Your task to perform on an android device: change keyboard looks Image 0: 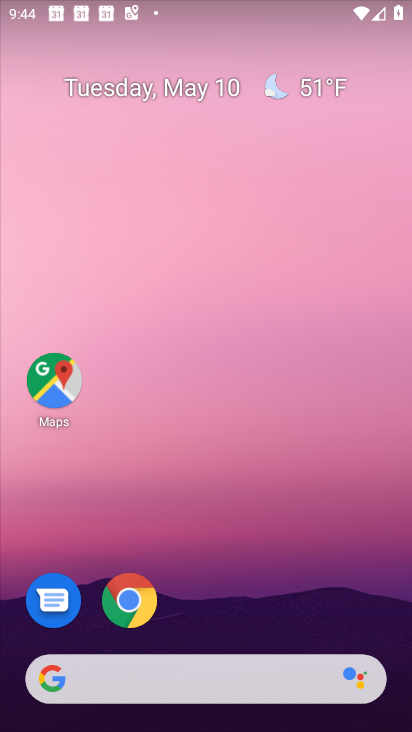
Step 0: drag from (233, 639) to (325, 14)
Your task to perform on an android device: change keyboard looks Image 1: 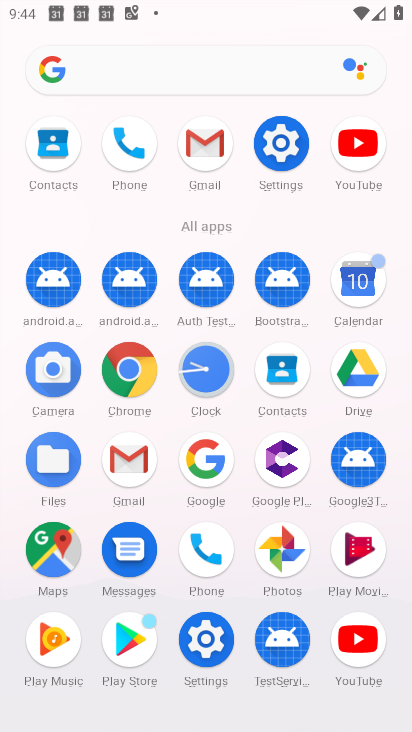
Step 1: click (270, 135)
Your task to perform on an android device: change keyboard looks Image 2: 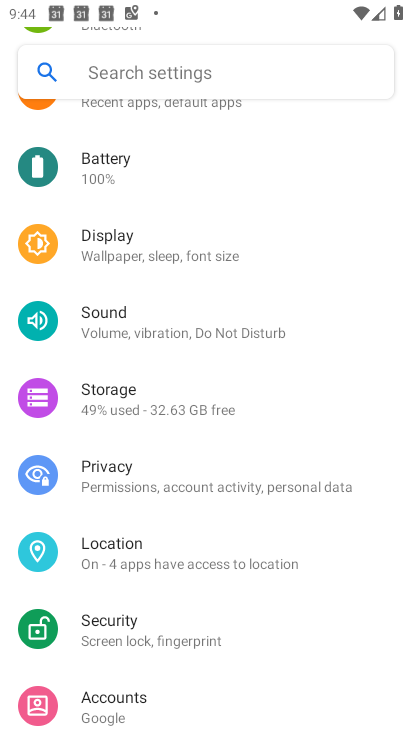
Step 2: drag from (187, 661) to (196, 122)
Your task to perform on an android device: change keyboard looks Image 3: 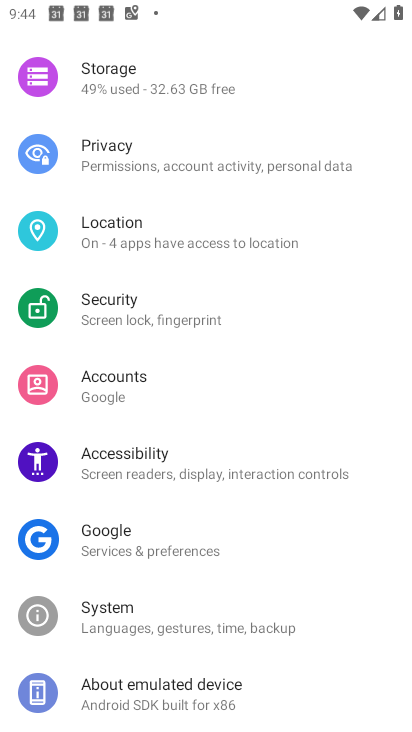
Step 3: click (202, 624)
Your task to perform on an android device: change keyboard looks Image 4: 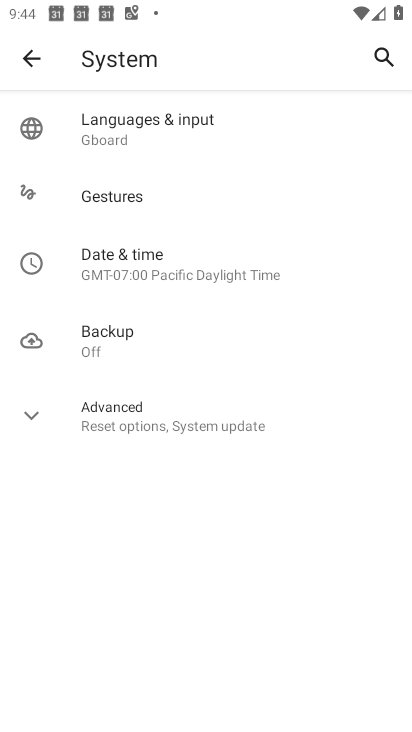
Step 4: click (189, 119)
Your task to perform on an android device: change keyboard looks Image 5: 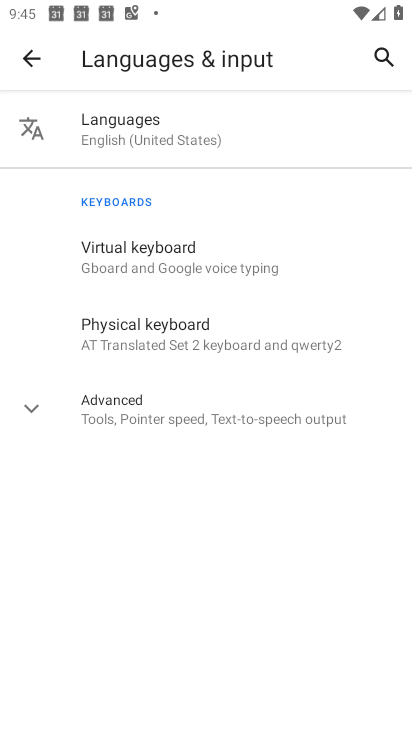
Step 5: click (156, 413)
Your task to perform on an android device: change keyboard looks Image 6: 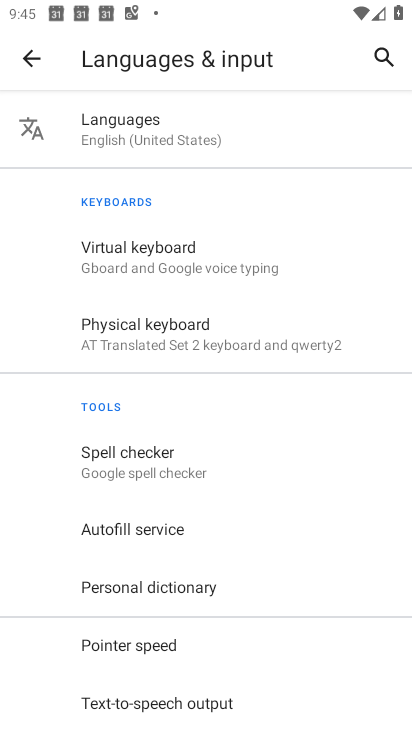
Step 6: drag from (187, 623) to (251, 284)
Your task to perform on an android device: change keyboard looks Image 7: 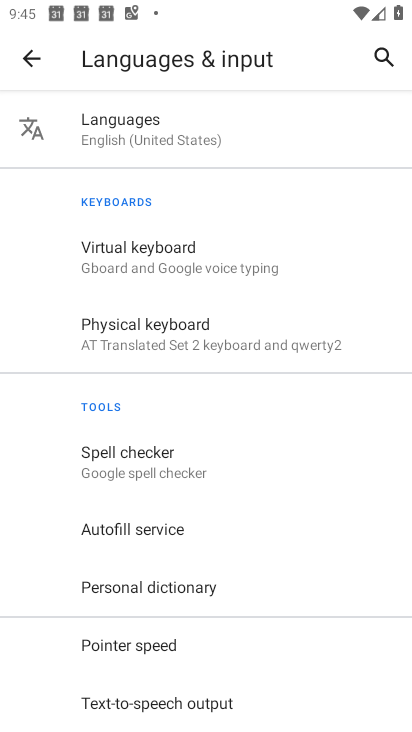
Step 7: click (125, 252)
Your task to perform on an android device: change keyboard looks Image 8: 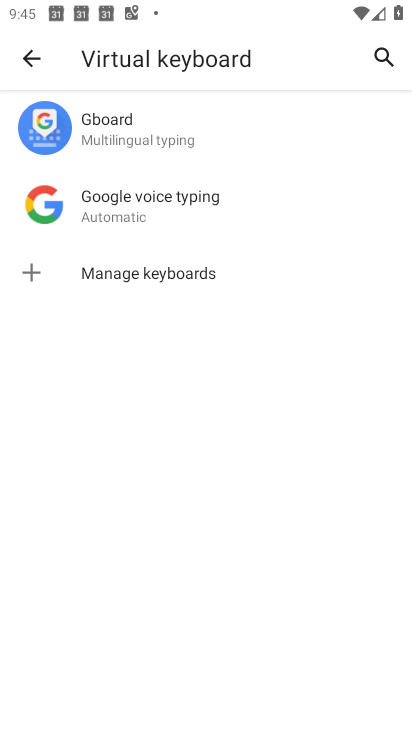
Step 8: click (132, 132)
Your task to perform on an android device: change keyboard looks Image 9: 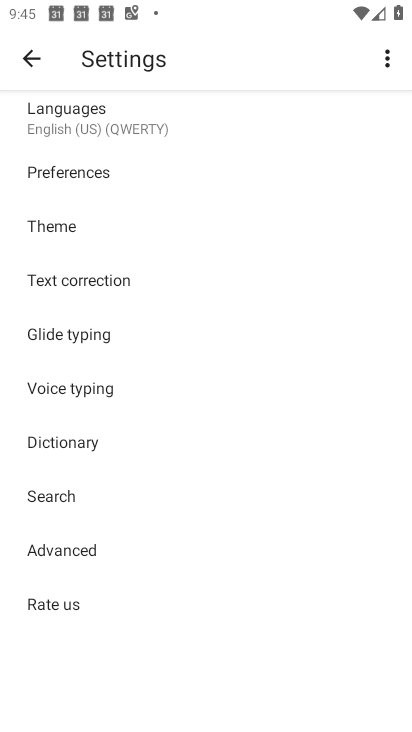
Step 9: click (85, 245)
Your task to perform on an android device: change keyboard looks Image 10: 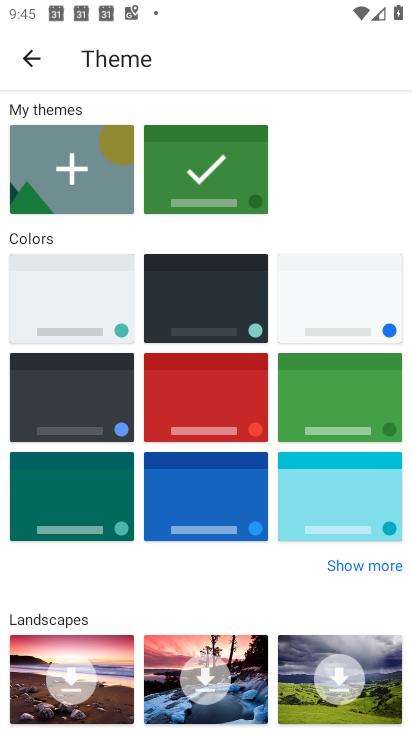
Step 10: click (174, 407)
Your task to perform on an android device: change keyboard looks Image 11: 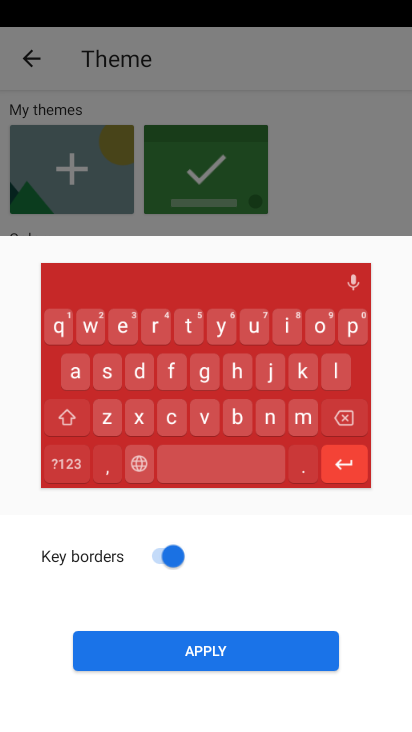
Step 11: click (216, 640)
Your task to perform on an android device: change keyboard looks Image 12: 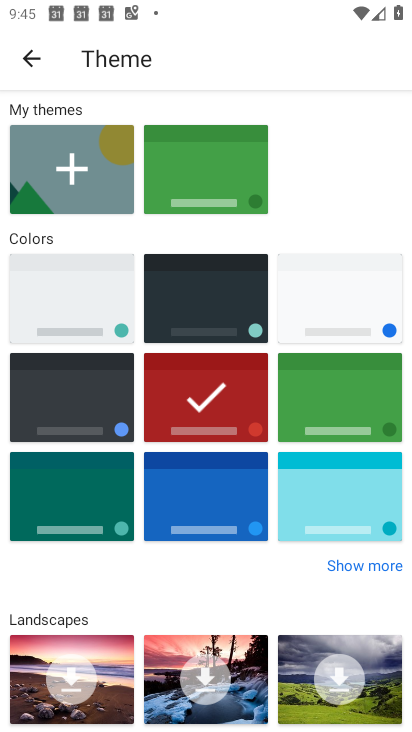
Step 12: task complete